Your task to perform on an android device: Open Reddit.com Image 0: 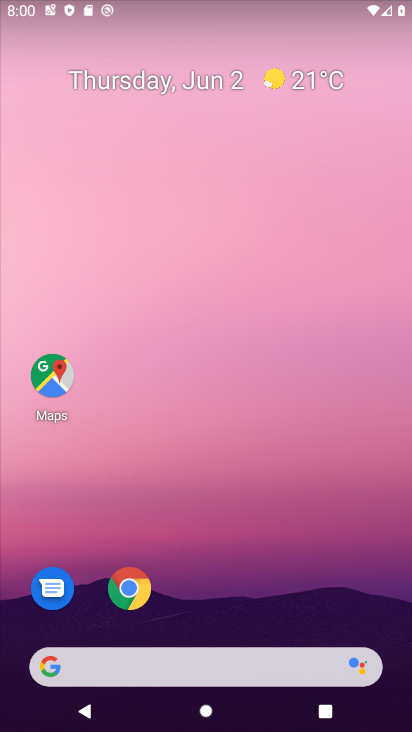
Step 0: click (141, 583)
Your task to perform on an android device: Open Reddit.com Image 1: 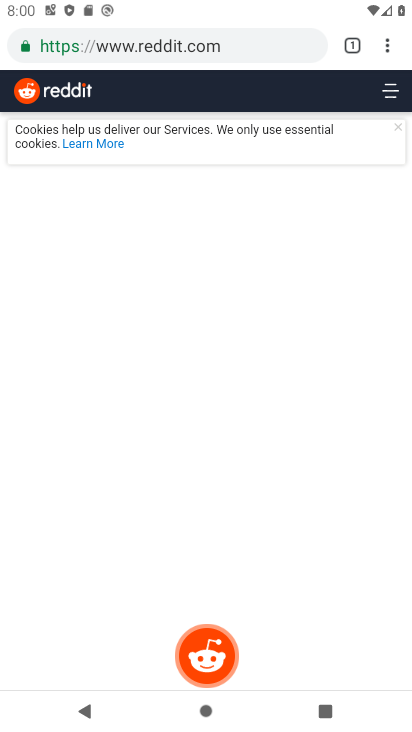
Step 1: task complete